Your task to perform on an android device: turn pop-ups on in chrome Image 0: 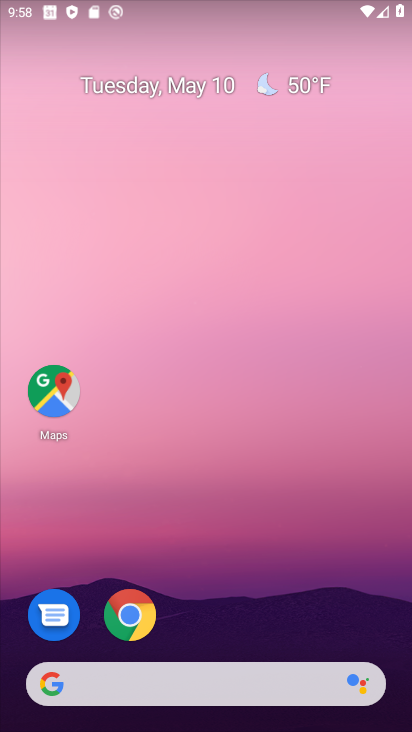
Step 0: drag from (217, 630) to (201, 142)
Your task to perform on an android device: turn pop-ups on in chrome Image 1: 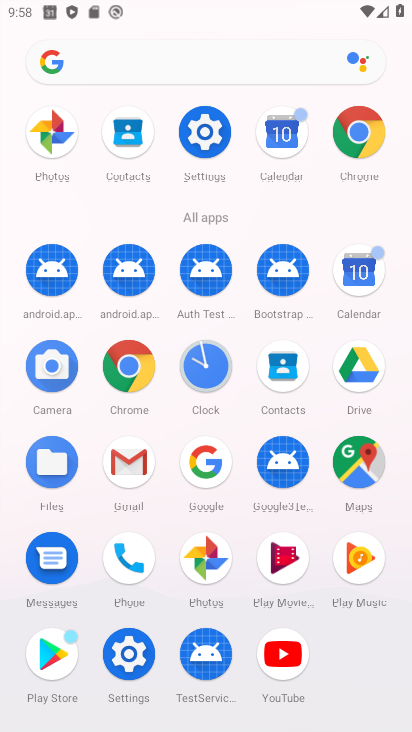
Step 1: click (362, 139)
Your task to perform on an android device: turn pop-ups on in chrome Image 2: 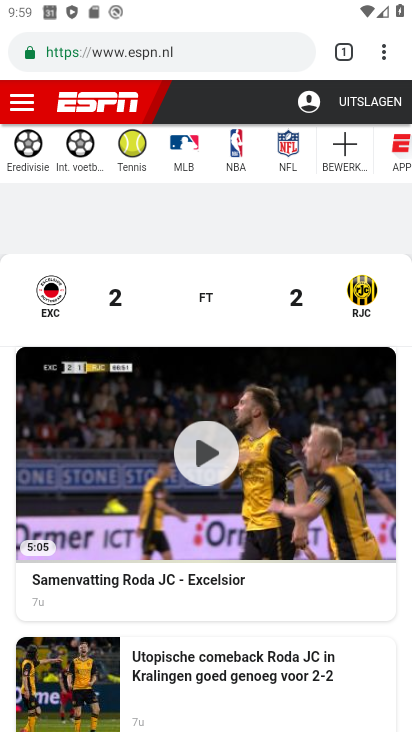
Step 2: click (383, 50)
Your task to perform on an android device: turn pop-ups on in chrome Image 3: 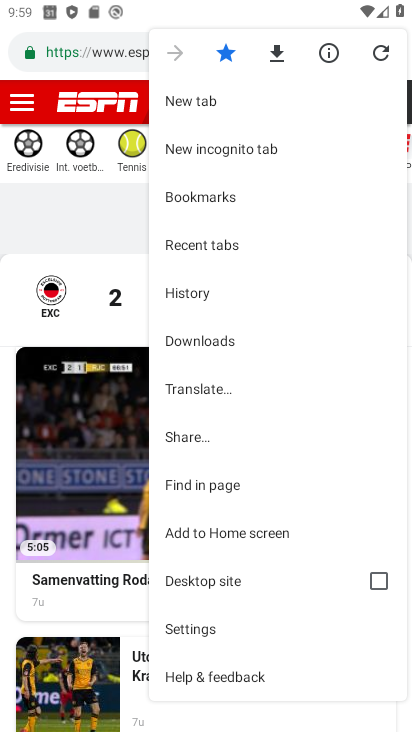
Step 3: click (223, 625)
Your task to perform on an android device: turn pop-ups on in chrome Image 4: 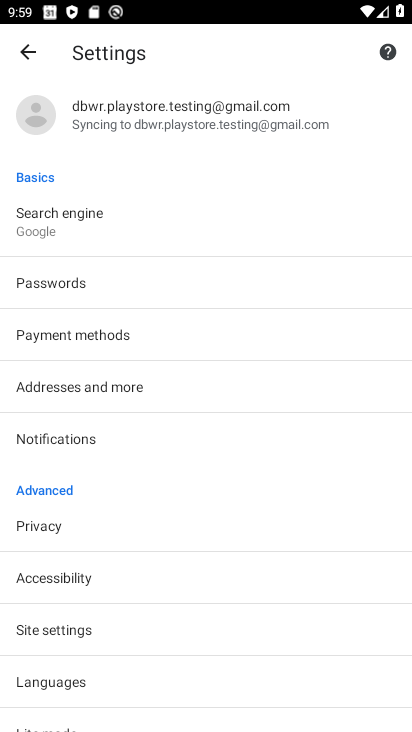
Step 4: drag from (162, 658) to (171, 223)
Your task to perform on an android device: turn pop-ups on in chrome Image 5: 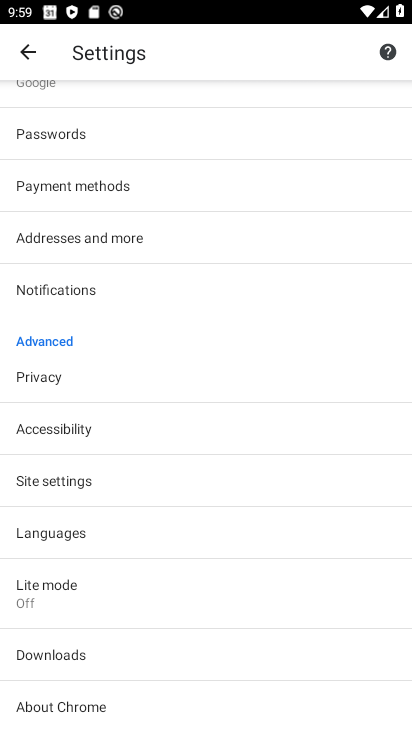
Step 5: click (107, 479)
Your task to perform on an android device: turn pop-ups on in chrome Image 6: 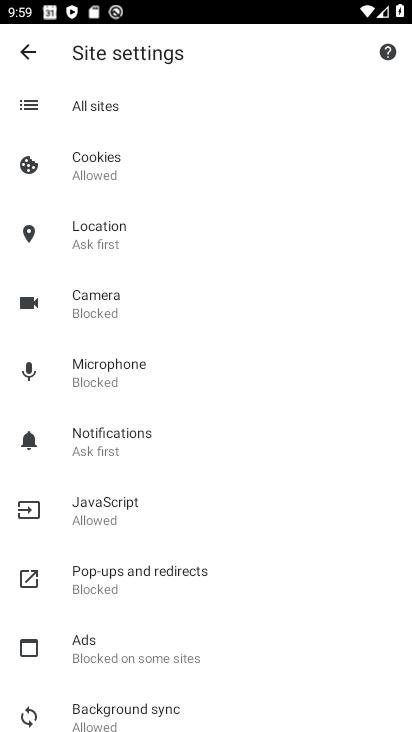
Step 6: click (172, 580)
Your task to perform on an android device: turn pop-ups on in chrome Image 7: 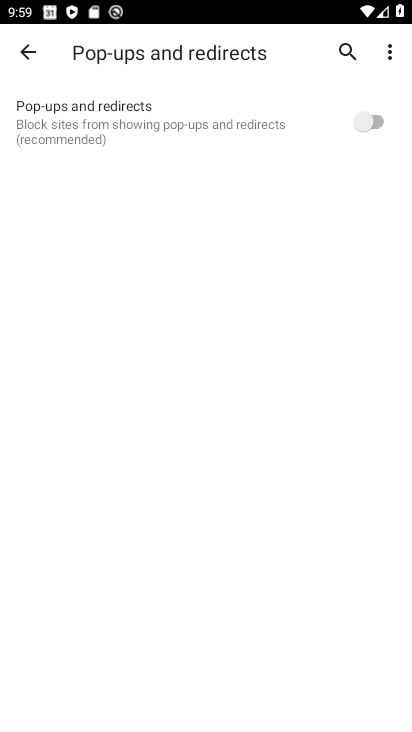
Step 7: click (373, 116)
Your task to perform on an android device: turn pop-ups on in chrome Image 8: 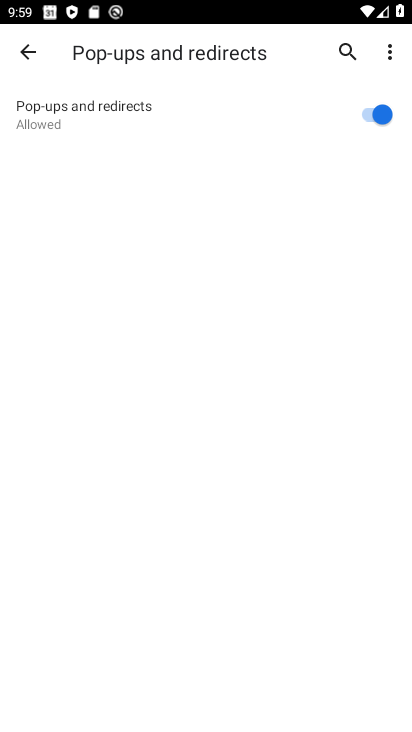
Step 8: task complete